Your task to perform on an android device: Toggle the flashlight Image 0: 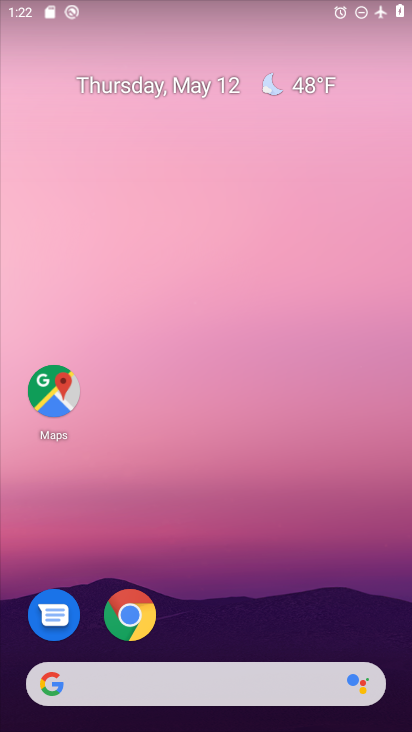
Step 0: drag from (229, 662) to (276, 27)
Your task to perform on an android device: Toggle the flashlight Image 1: 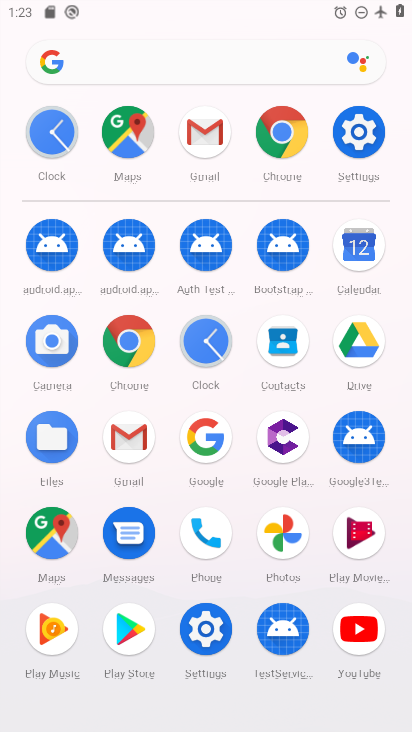
Step 1: task complete